Your task to perform on an android device: Go to Android settings Image 0: 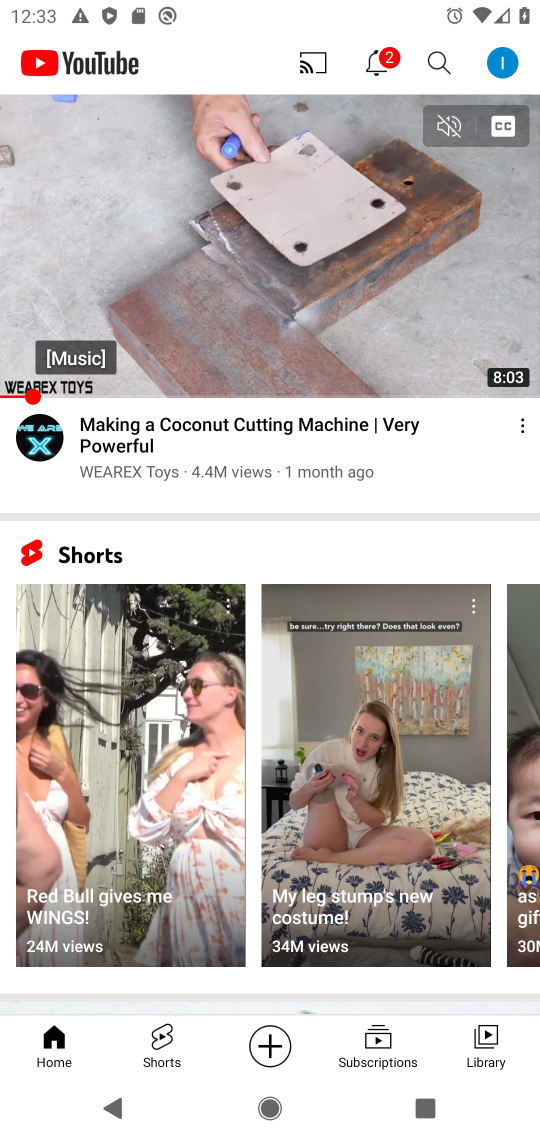
Step 0: press home button
Your task to perform on an android device: Go to Android settings Image 1: 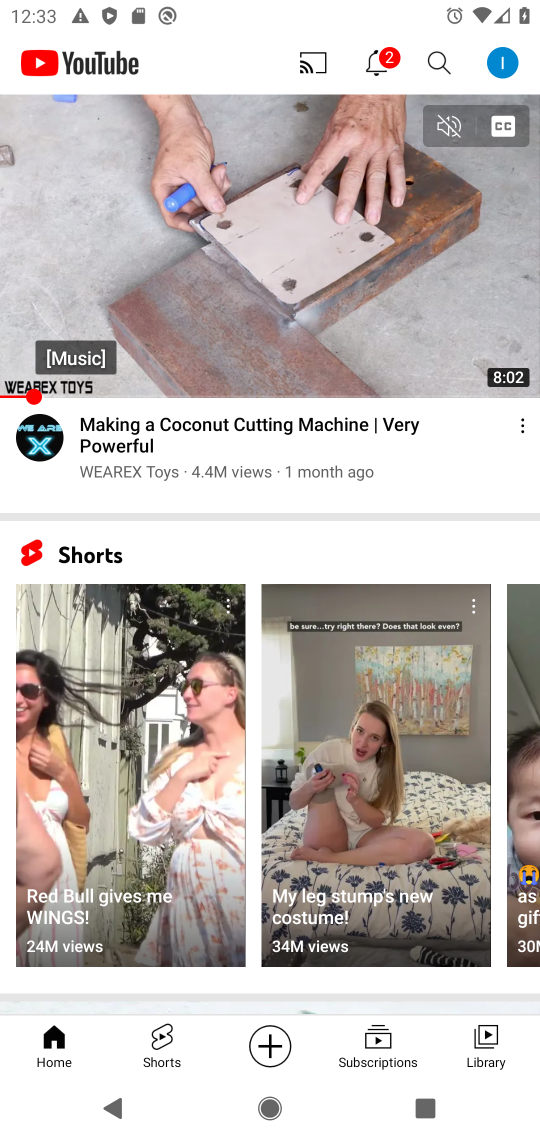
Step 1: press home button
Your task to perform on an android device: Go to Android settings Image 2: 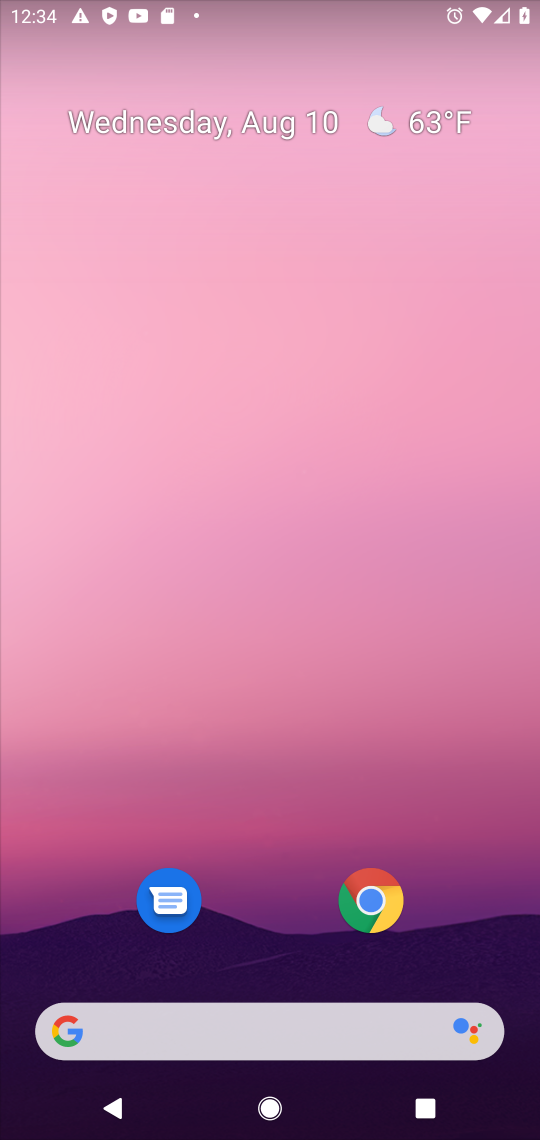
Step 2: drag from (278, 908) to (299, 6)
Your task to perform on an android device: Go to Android settings Image 3: 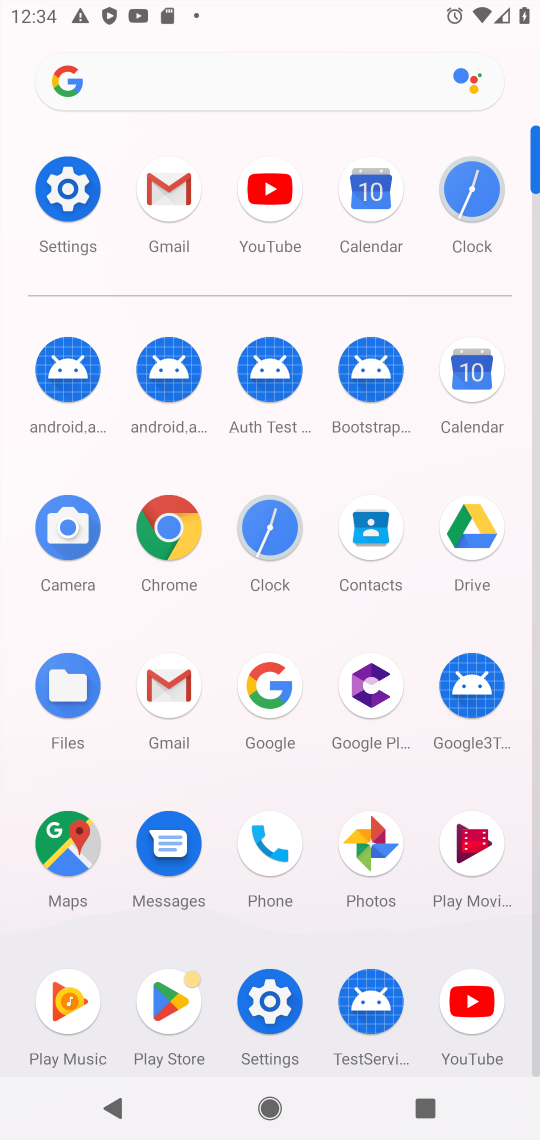
Step 3: click (269, 994)
Your task to perform on an android device: Go to Android settings Image 4: 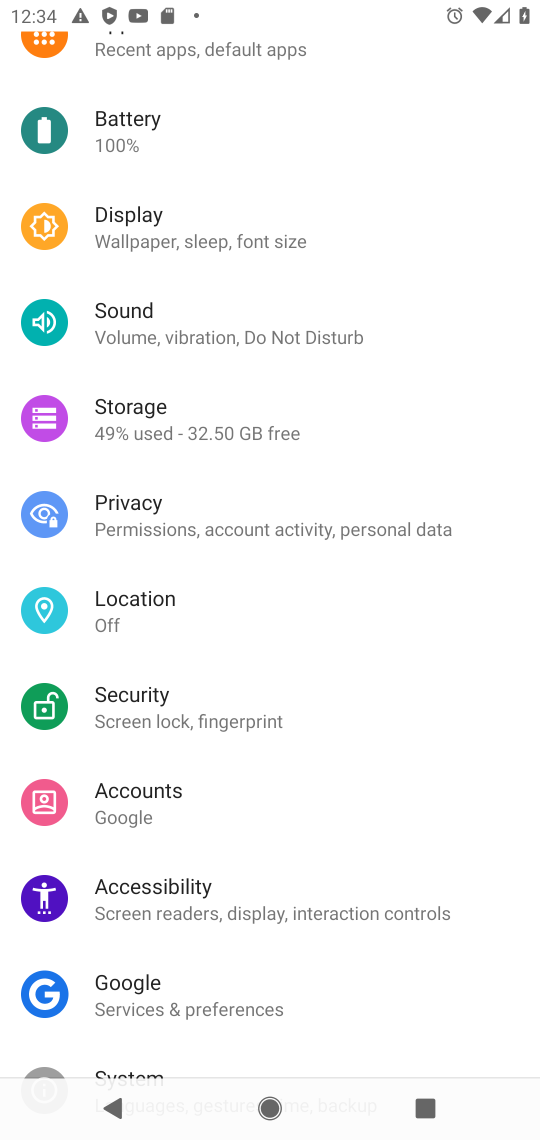
Step 4: drag from (372, 798) to (313, 33)
Your task to perform on an android device: Go to Android settings Image 5: 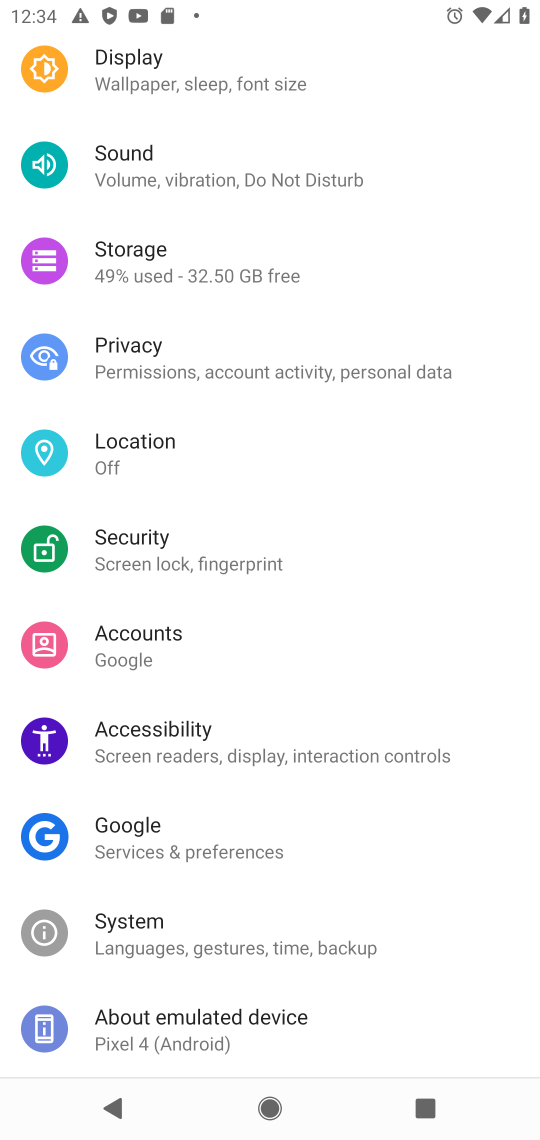
Step 5: click (300, 1020)
Your task to perform on an android device: Go to Android settings Image 6: 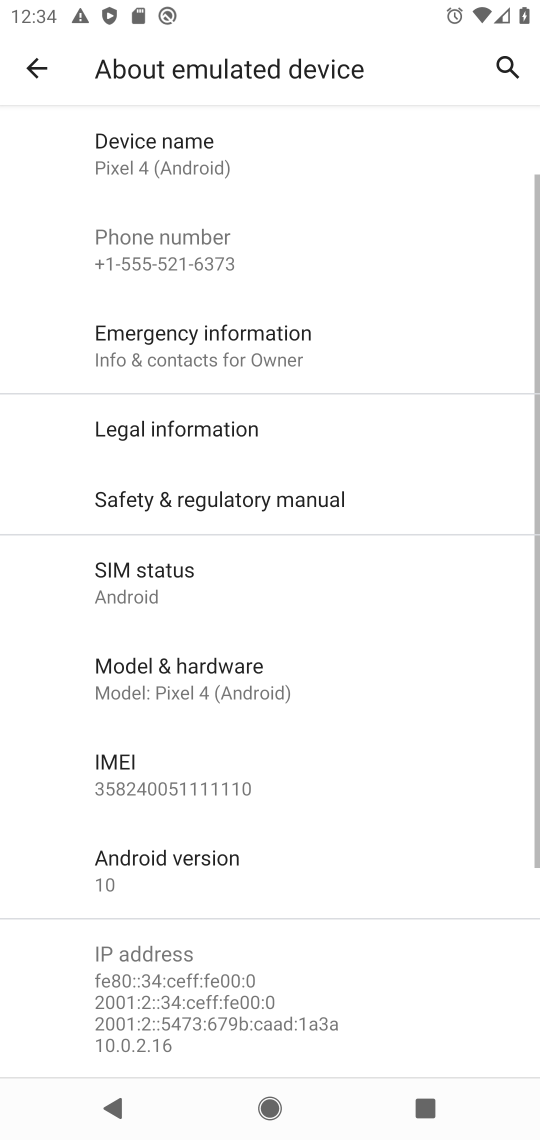
Step 6: task complete